Your task to perform on an android device: turn notification dots off Image 0: 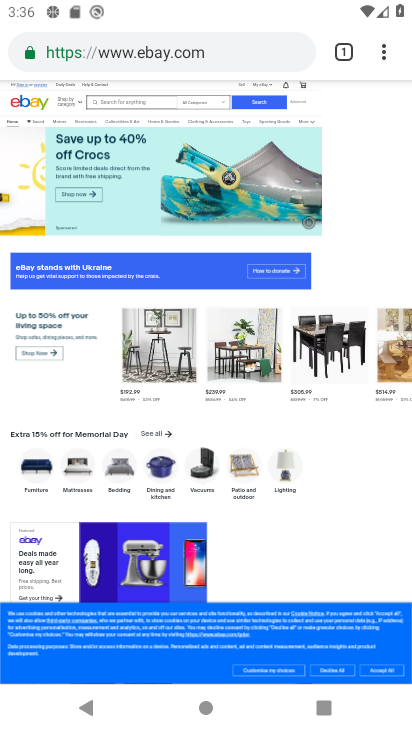
Step 0: press home button
Your task to perform on an android device: turn notification dots off Image 1: 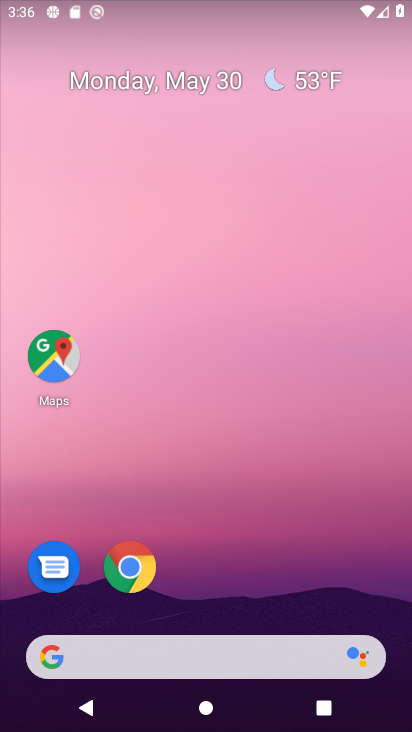
Step 1: drag from (200, 650) to (223, 4)
Your task to perform on an android device: turn notification dots off Image 2: 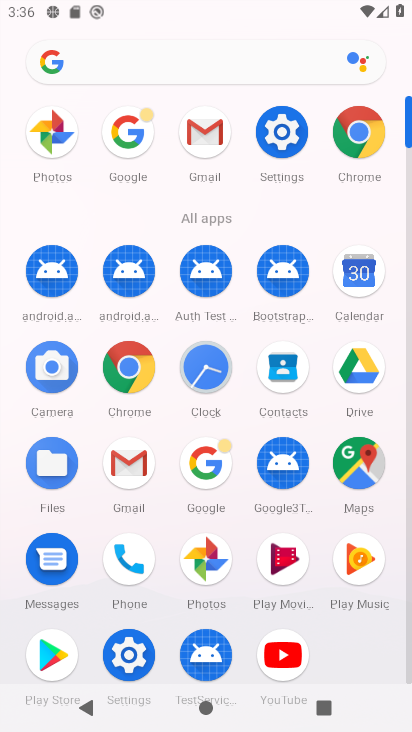
Step 2: click (279, 137)
Your task to perform on an android device: turn notification dots off Image 3: 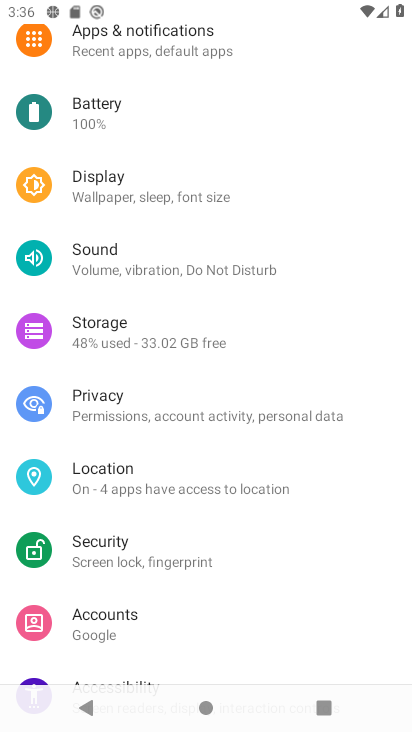
Step 3: click (185, 55)
Your task to perform on an android device: turn notification dots off Image 4: 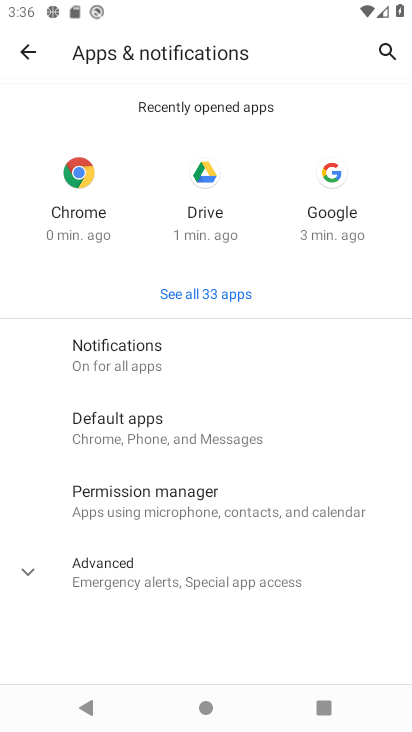
Step 4: click (211, 347)
Your task to perform on an android device: turn notification dots off Image 5: 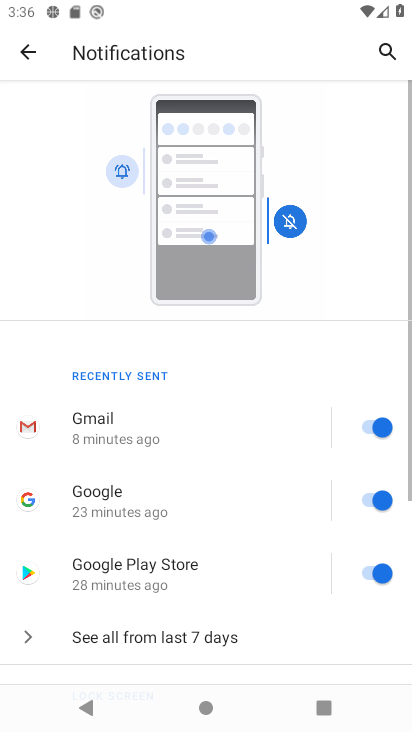
Step 5: drag from (151, 688) to (255, 252)
Your task to perform on an android device: turn notification dots off Image 6: 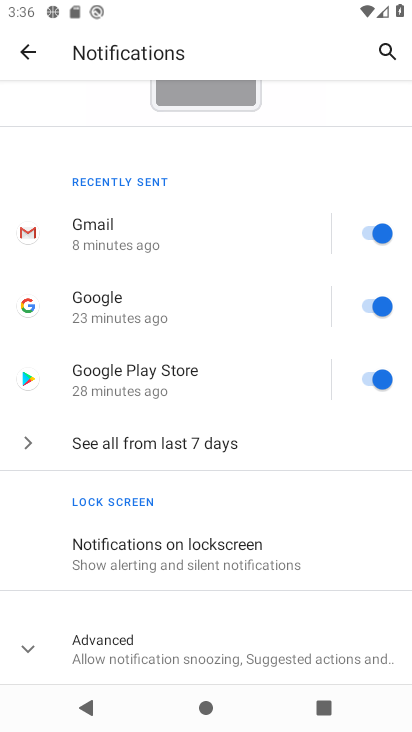
Step 6: click (166, 632)
Your task to perform on an android device: turn notification dots off Image 7: 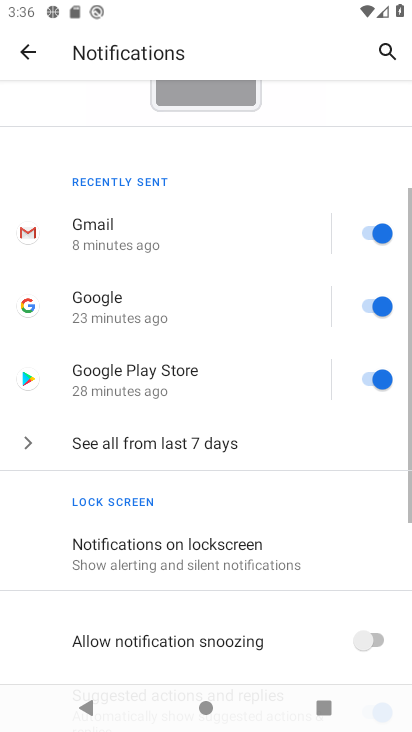
Step 7: drag from (166, 632) to (265, 172)
Your task to perform on an android device: turn notification dots off Image 8: 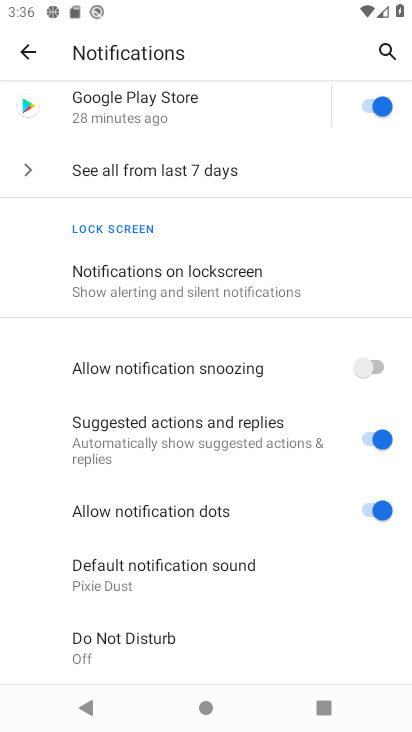
Step 8: click (364, 512)
Your task to perform on an android device: turn notification dots off Image 9: 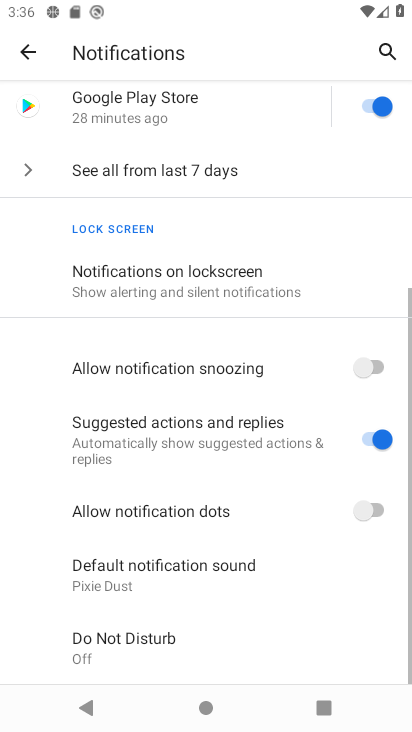
Step 9: task complete